Your task to perform on an android device: Go to notification settings Image 0: 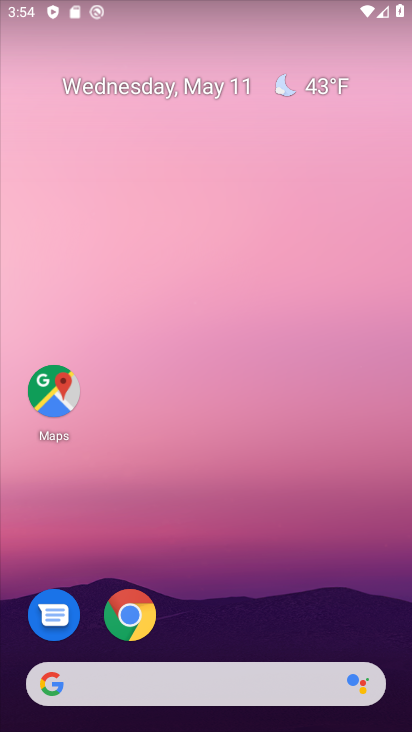
Step 0: drag from (207, 537) to (0, 436)
Your task to perform on an android device: Go to notification settings Image 1: 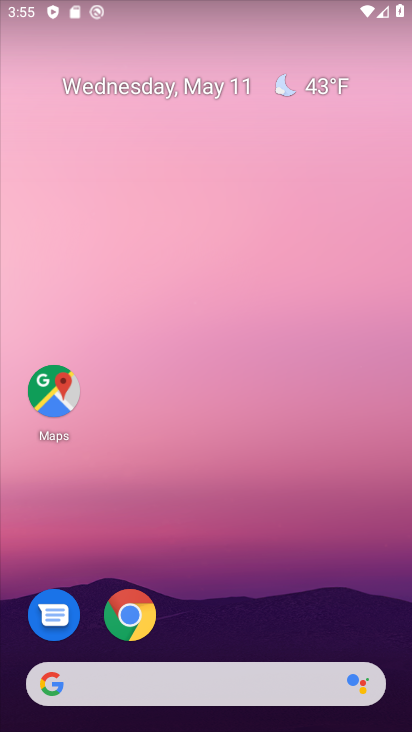
Step 1: drag from (13, 549) to (5, 8)
Your task to perform on an android device: Go to notification settings Image 2: 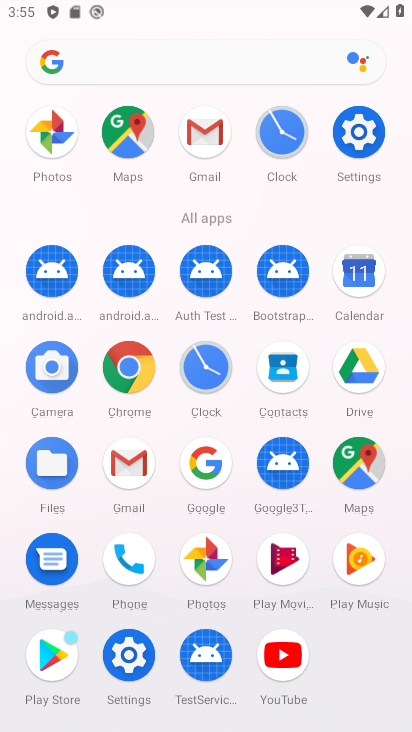
Step 2: drag from (18, 525) to (17, 295)
Your task to perform on an android device: Go to notification settings Image 3: 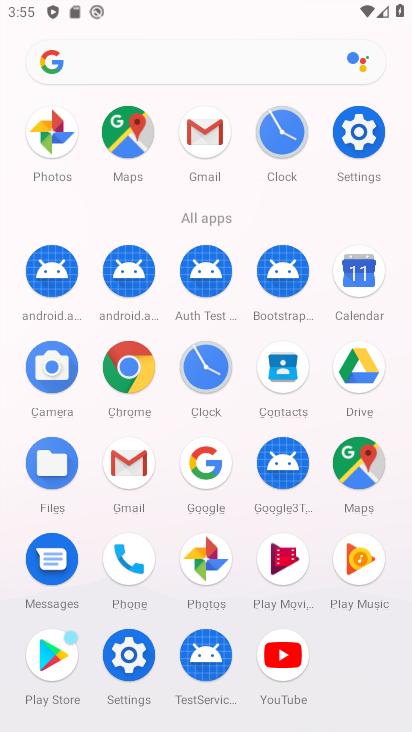
Step 3: click (125, 651)
Your task to perform on an android device: Go to notification settings Image 4: 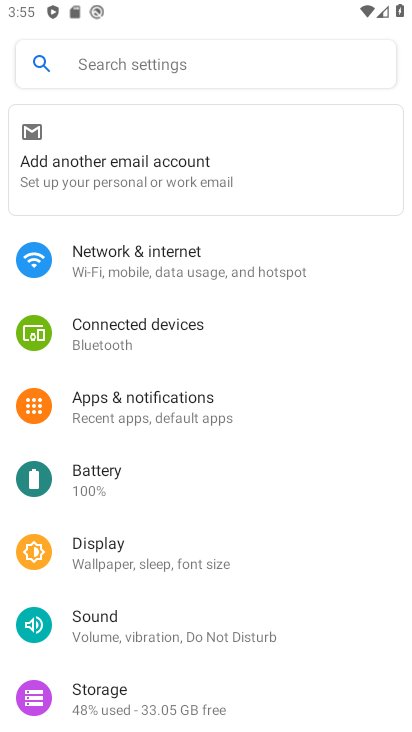
Step 4: drag from (331, 590) to (333, 223)
Your task to perform on an android device: Go to notification settings Image 5: 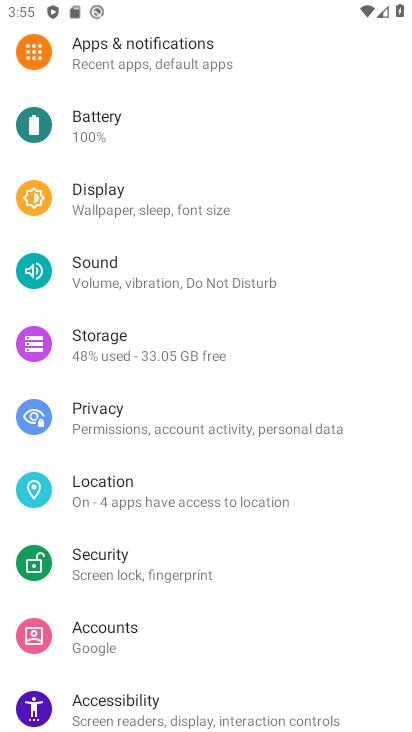
Step 5: click (198, 51)
Your task to perform on an android device: Go to notification settings Image 6: 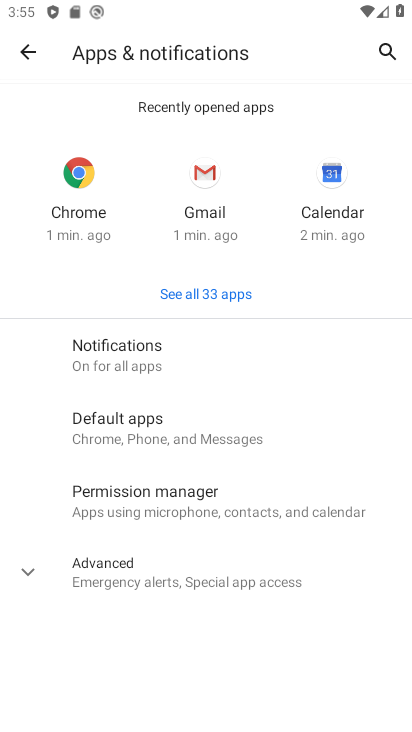
Step 6: click (26, 567)
Your task to perform on an android device: Go to notification settings Image 7: 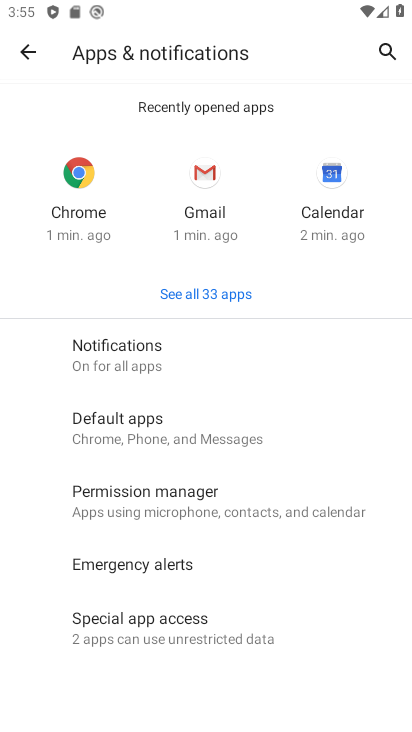
Step 7: click (137, 356)
Your task to perform on an android device: Go to notification settings Image 8: 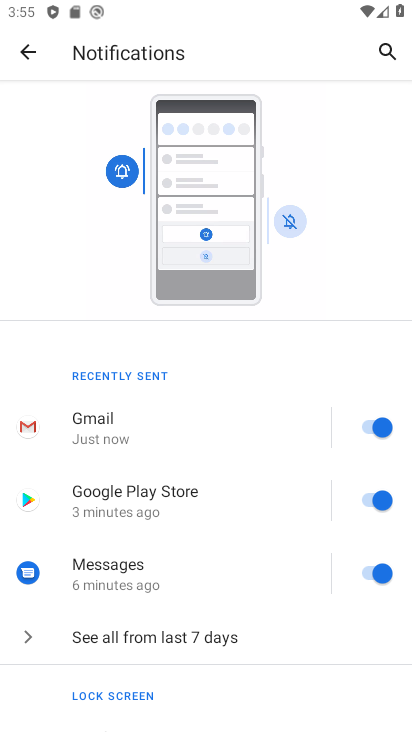
Step 8: drag from (203, 549) to (269, 131)
Your task to perform on an android device: Go to notification settings Image 9: 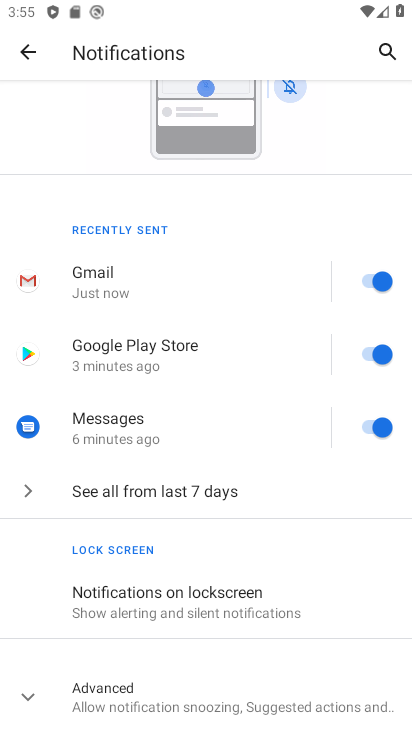
Step 9: drag from (193, 586) to (218, 186)
Your task to perform on an android device: Go to notification settings Image 10: 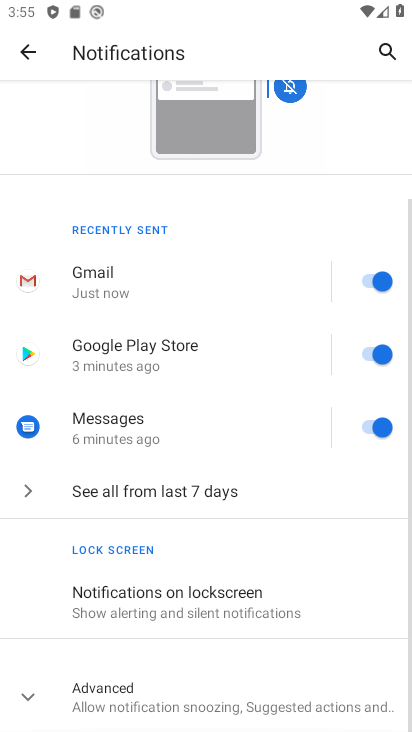
Step 10: click (32, 697)
Your task to perform on an android device: Go to notification settings Image 11: 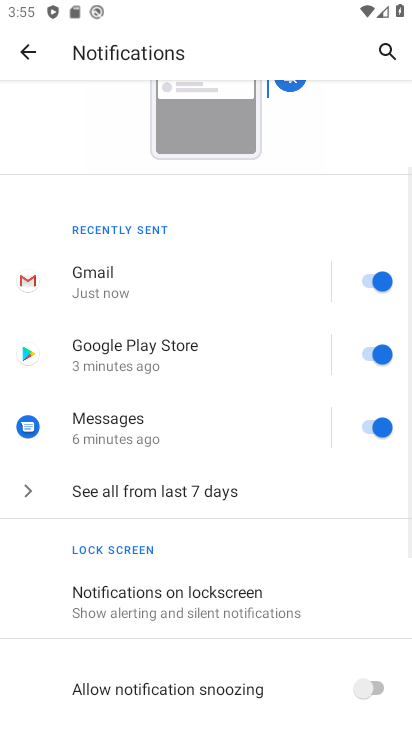
Step 11: task complete